Your task to perform on an android device: add a label to a message in the gmail app Image 0: 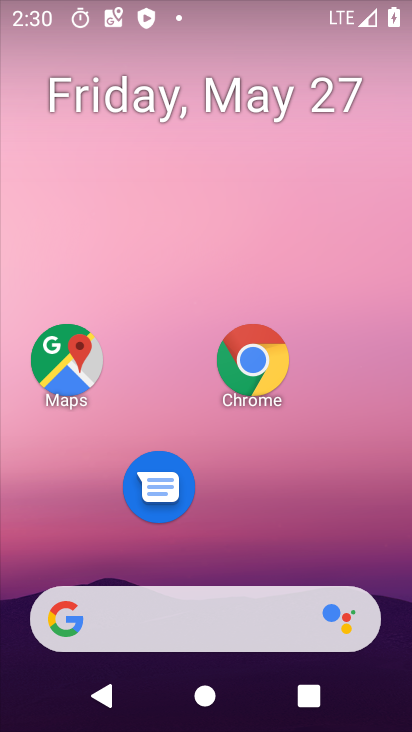
Step 0: drag from (252, 508) to (324, 43)
Your task to perform on an android device: add a label to a message in the gmail app Image 1: 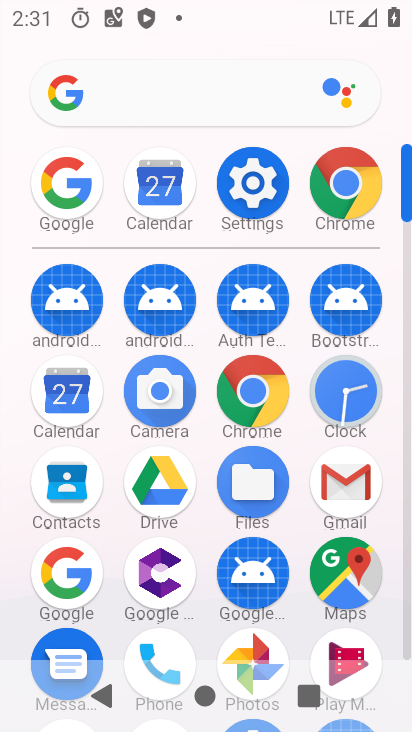
Step 1: click (344, 484)
Your task to perform on an android device: add a label to a message in the gmail app Image 2: 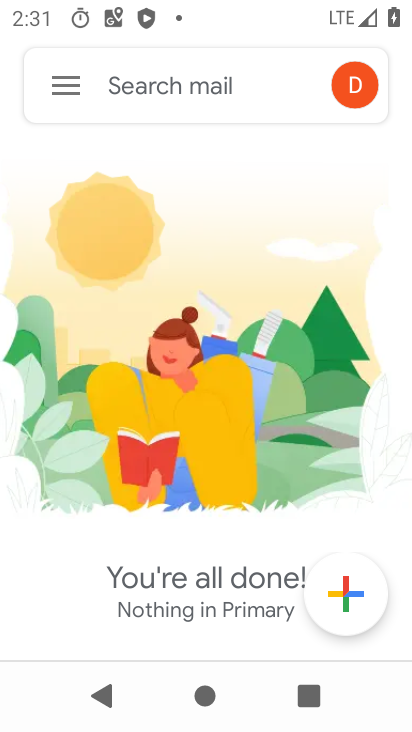
Step 2: click (63, 84)
Your task to perform on an android device: add a label to a message in the gmail app Image 3: 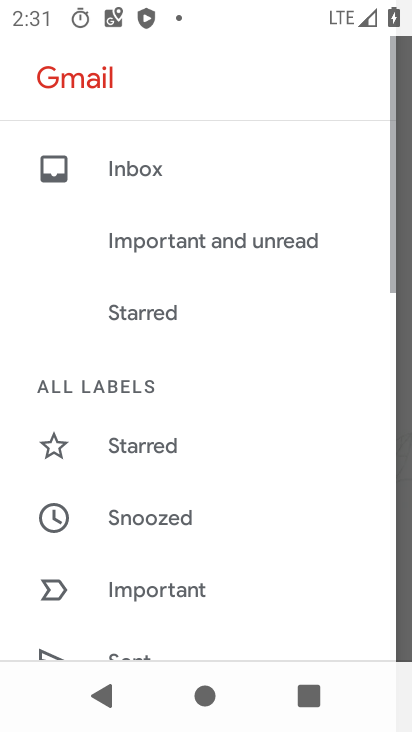
Step 3: drag from (149, 567) to (186, 139)
Your task to perform on an android device: add a label to a message in the gmail app Image 4: 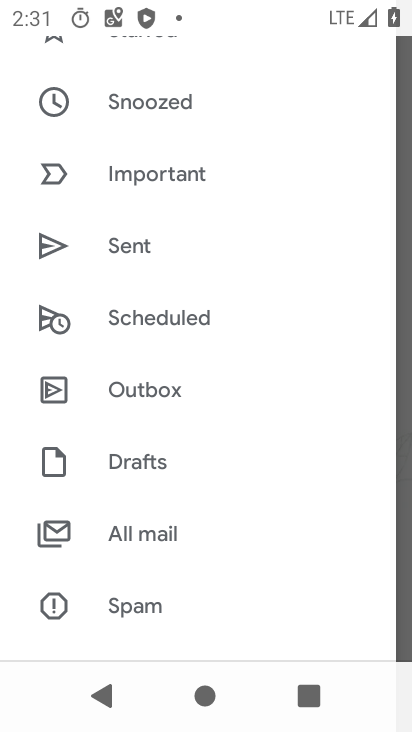
Step 4: click (152, 533)
Your task to perform on an android device: add a label to a message in the gmail app Image 5: 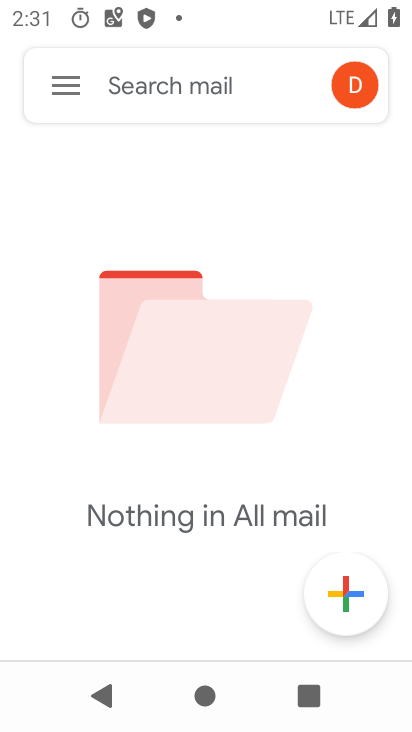
Step 5: task complete